Your task to perform on an android device: install app "Google Drive" Image 0: 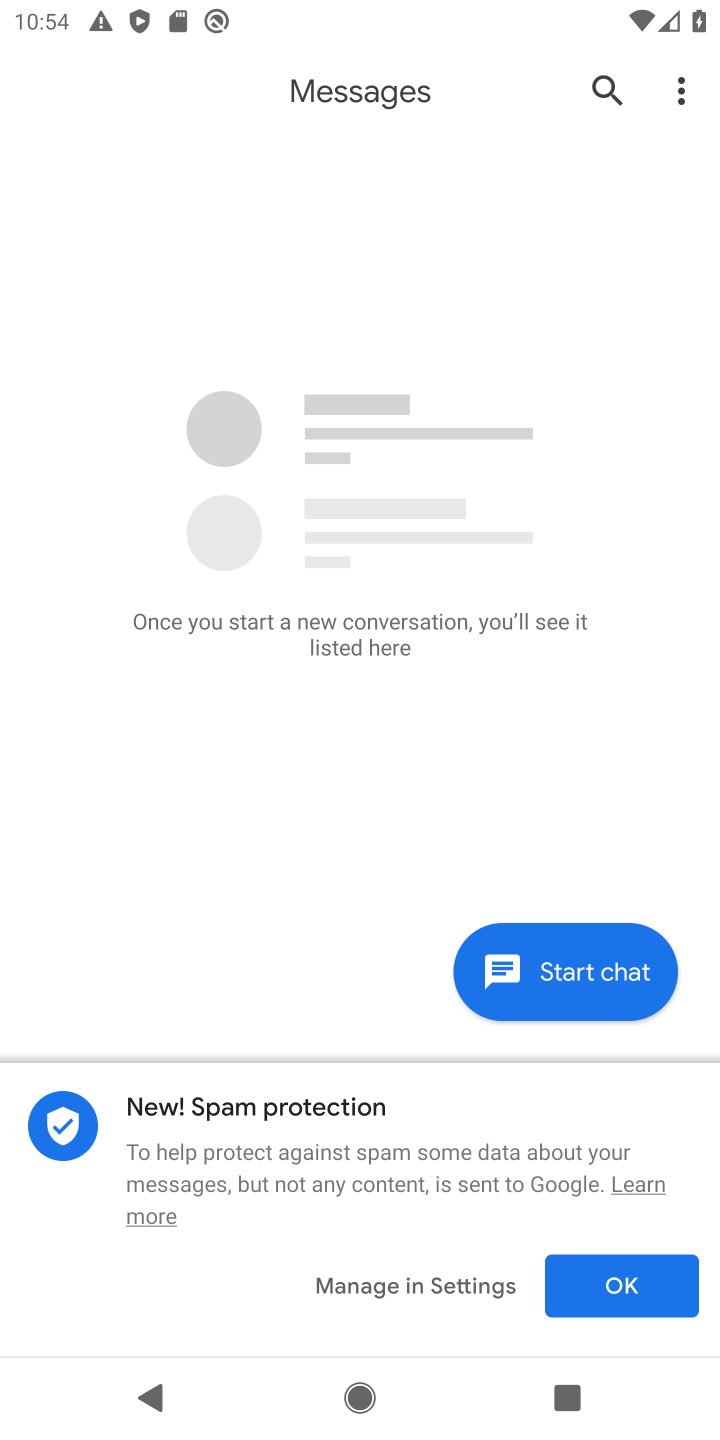
Step 0: press home button
Your task to perform on an android device: install app "Google Drive" Image 1: 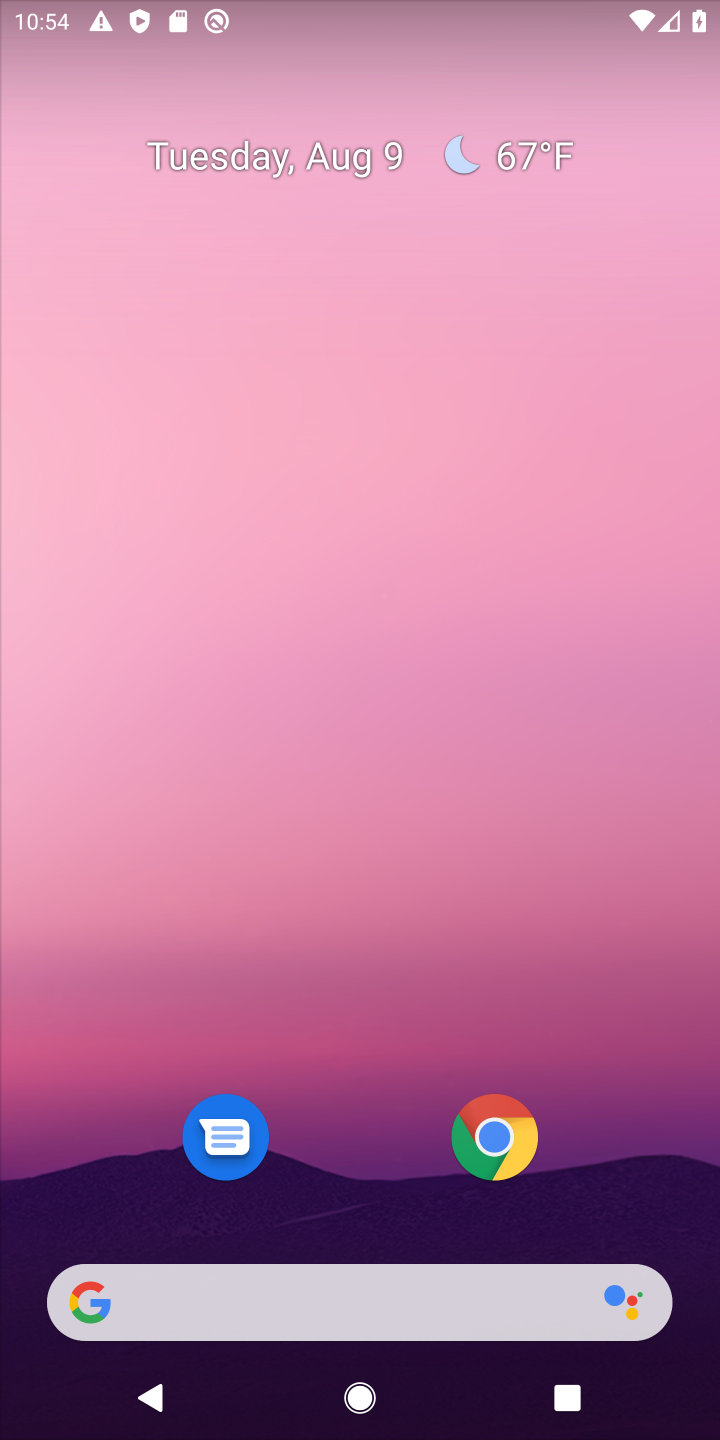
Step 1: drag from (629, 1122) to (178, 485)
Your task to perform on an android device: install app "Google Drive" Image 2: 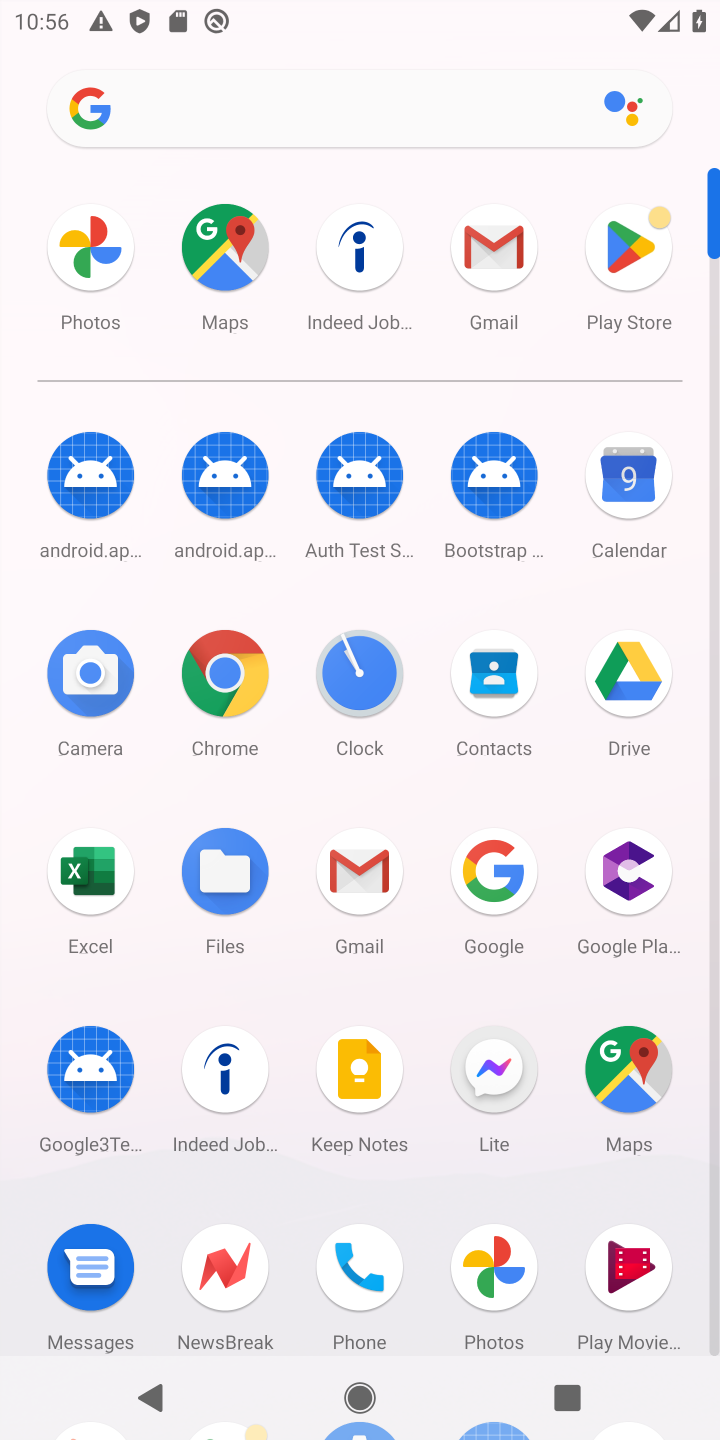
Step 2: click (617, 261)
Your task to perform on an android device: install app "Google Drive" Image 3: 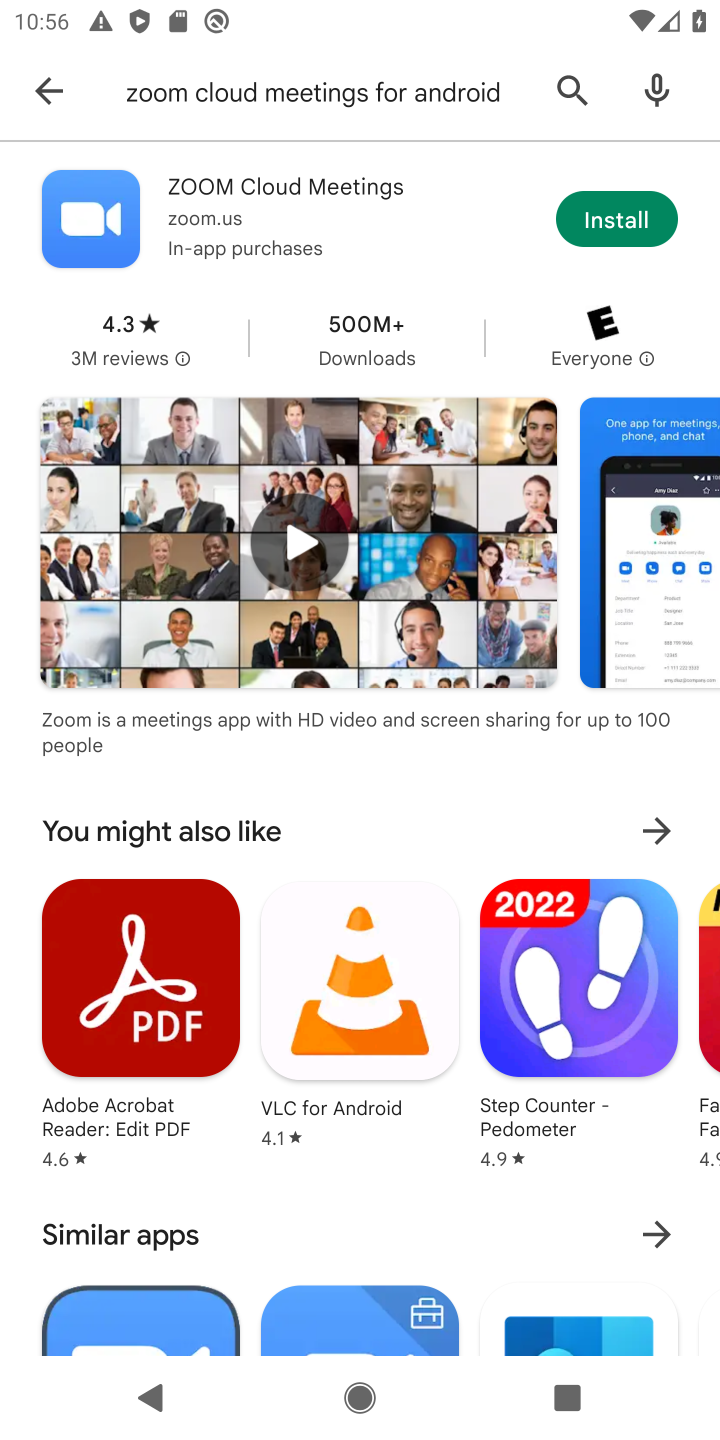
Step 3: press back button
Your task to perform on an android device: install app "Google Drive" Image 4: 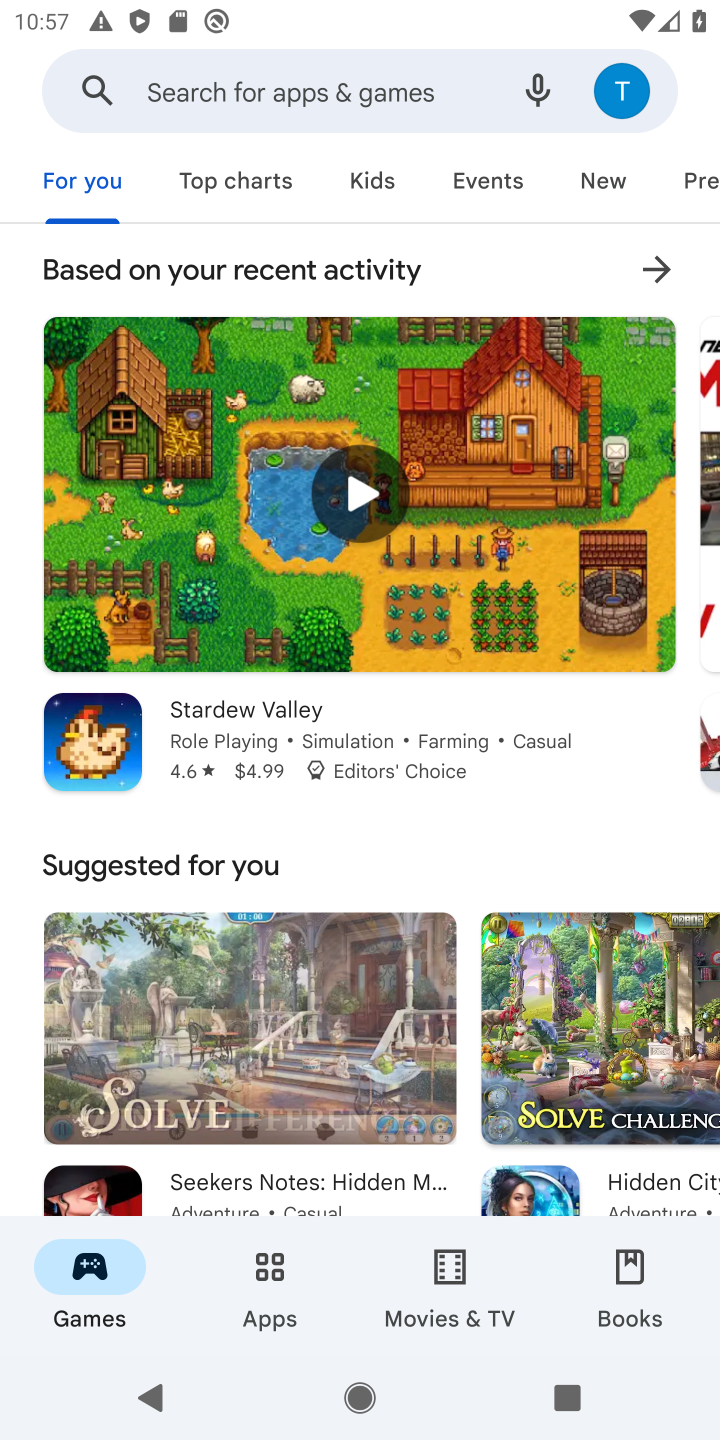
Step 4: click (262, 93)
Your task to perform on an android device: install app "Google Drive" Image 5: 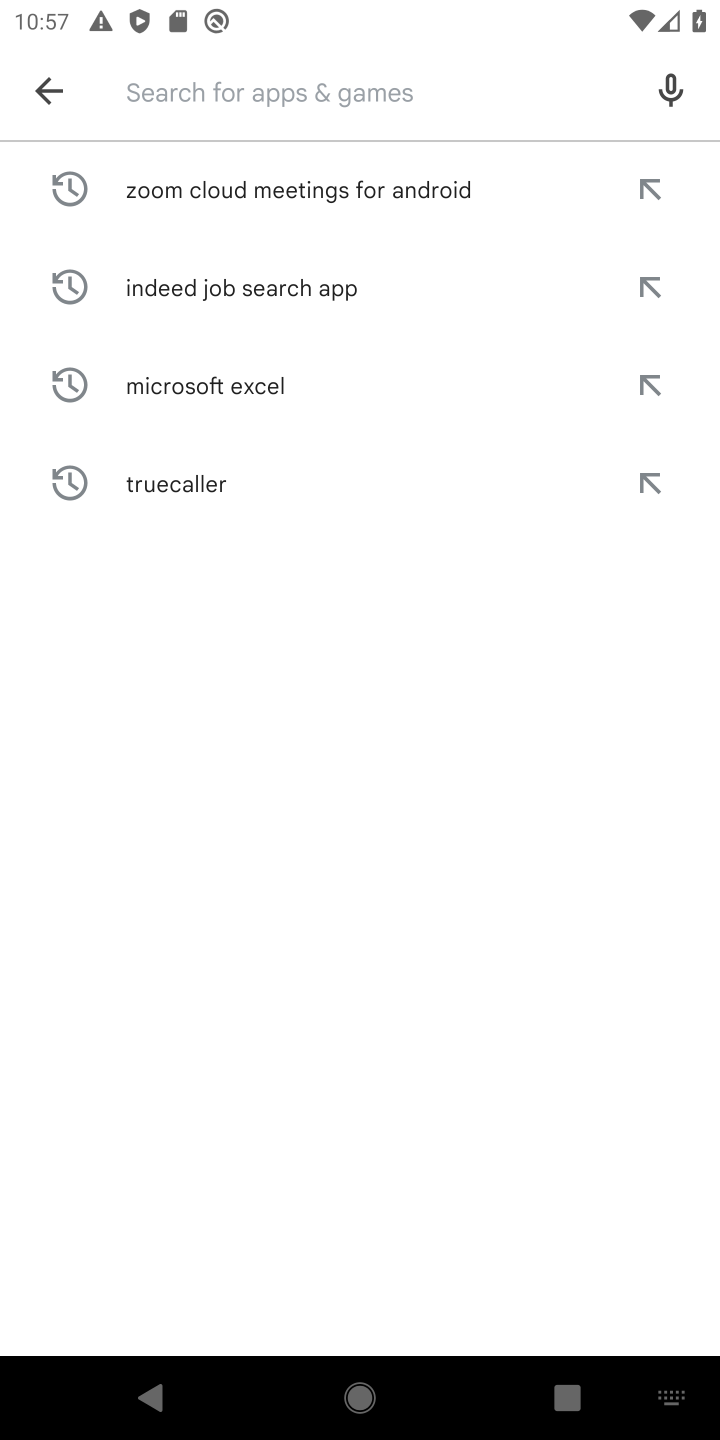
Step 5: type "Google Drive"
Your task to perform on an android device: install app "Google Drive" Image 6: 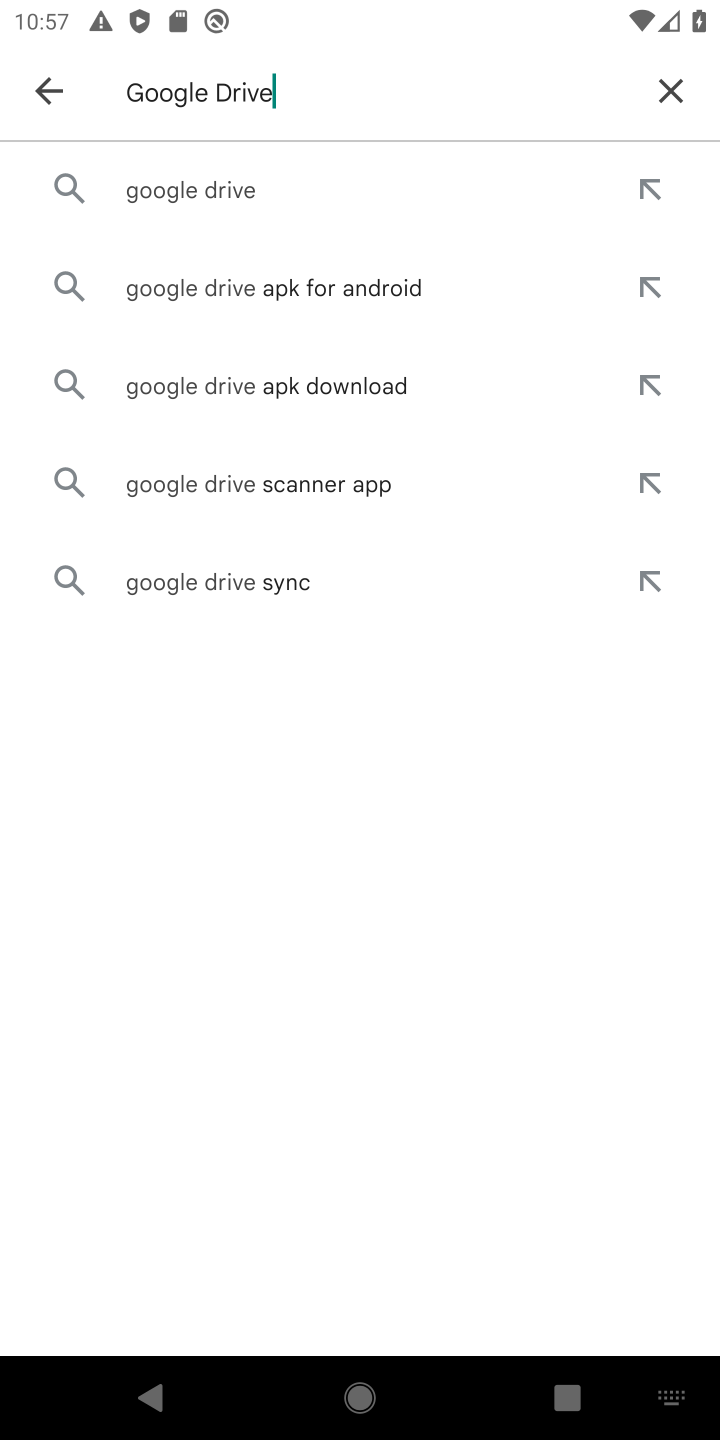
Step 6: click (253, 208)
Your task to perform on an android device: install app "Google Drive" Image 7: 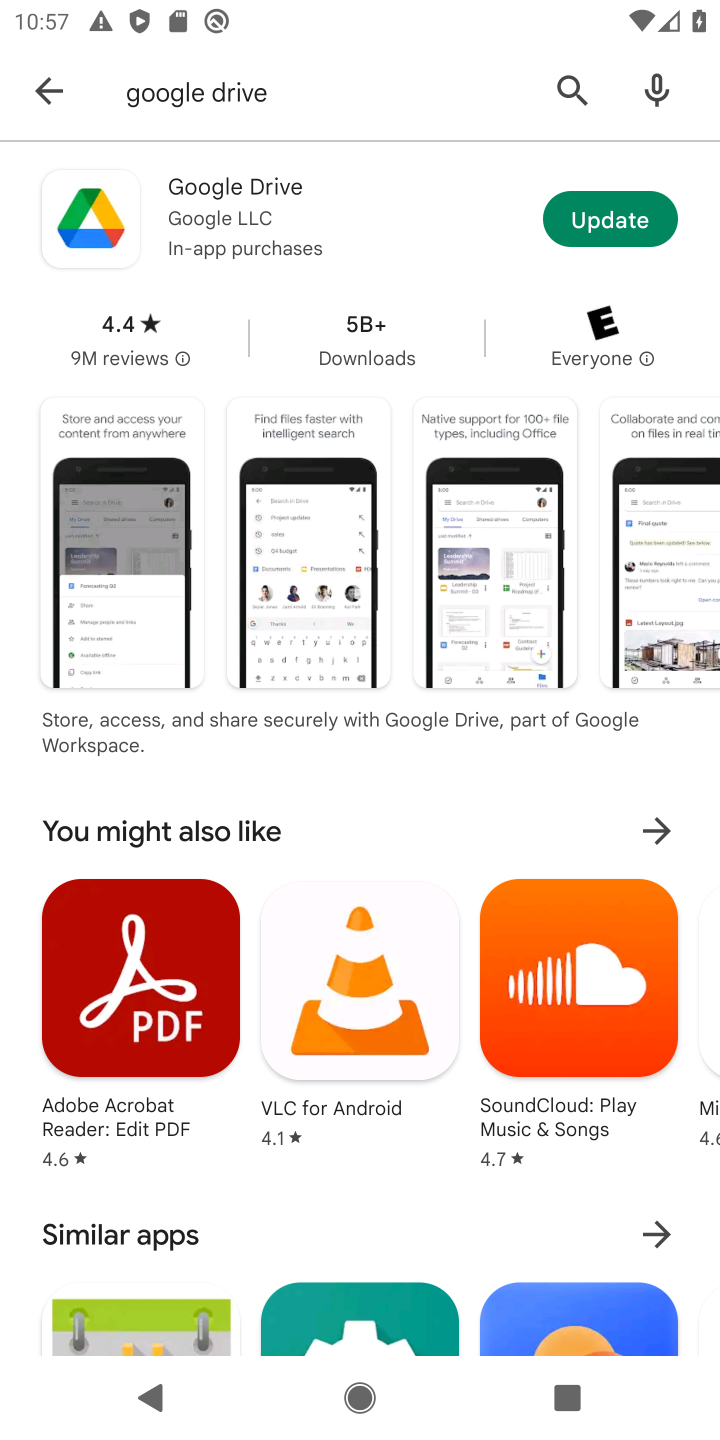
Step 7: click (641, 222)
Your task to perform on an android device: install app "Google Drive" Image 8: 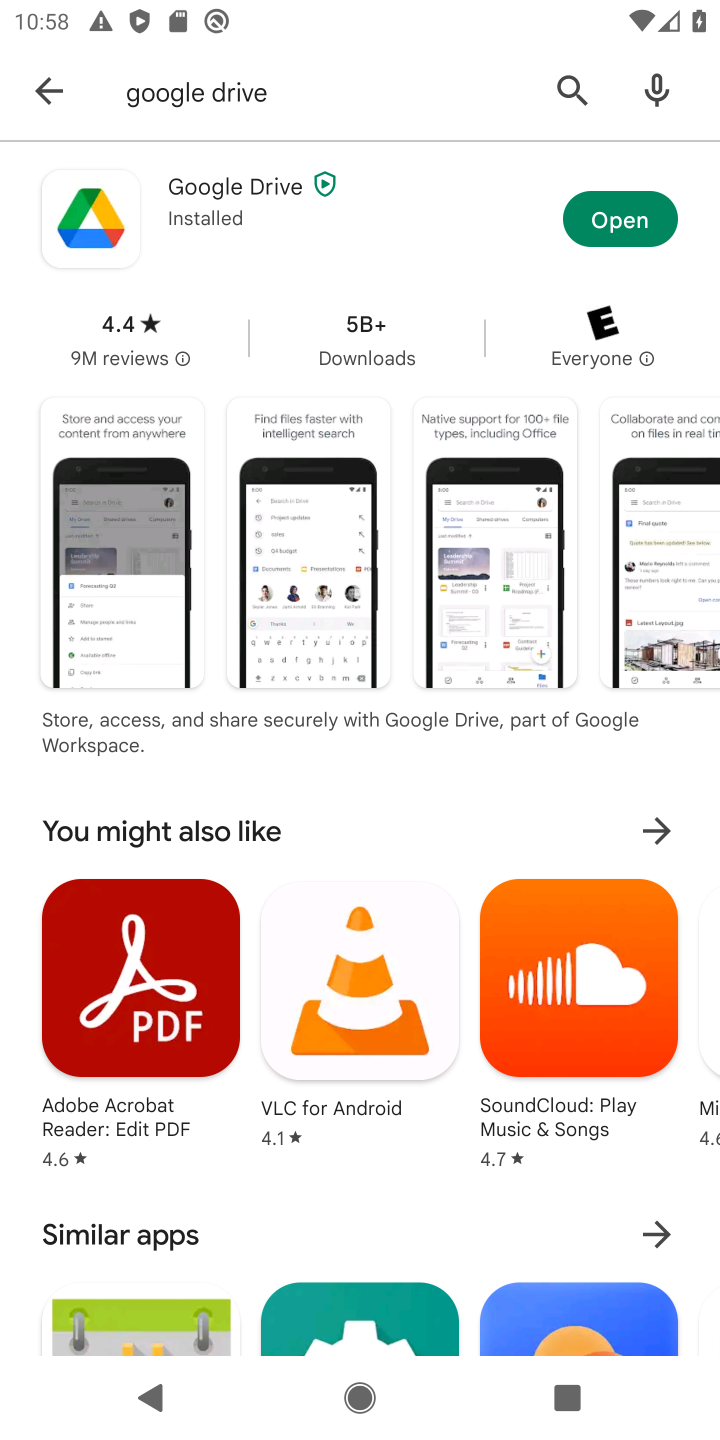
Step 8: task complete